Your task to perform on an android device: change the upload size in google photos Image 0: 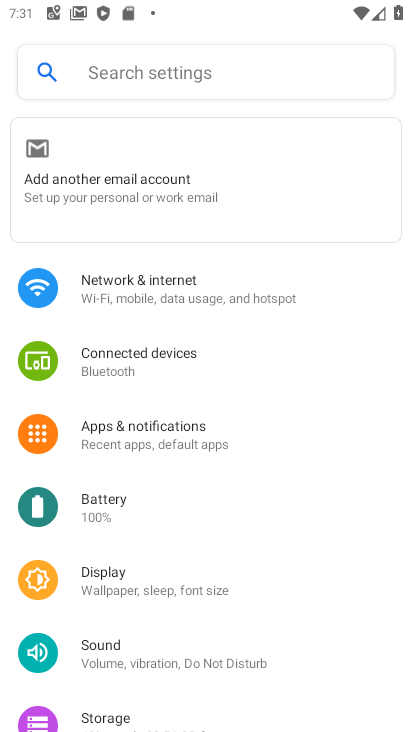
Step 0: press home button
Your task to perform on an android device: change the upload size in google photos Image 1: 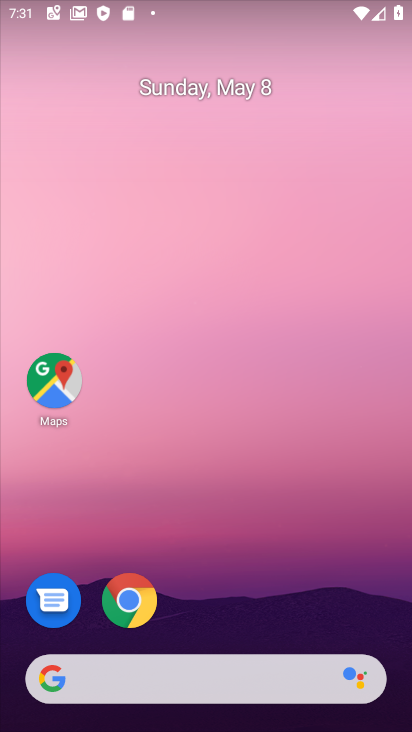
Step 1: drag from (251, 723) to (218, 335)
Your task to perform on an android device: change the upload size in google photos Image 2: 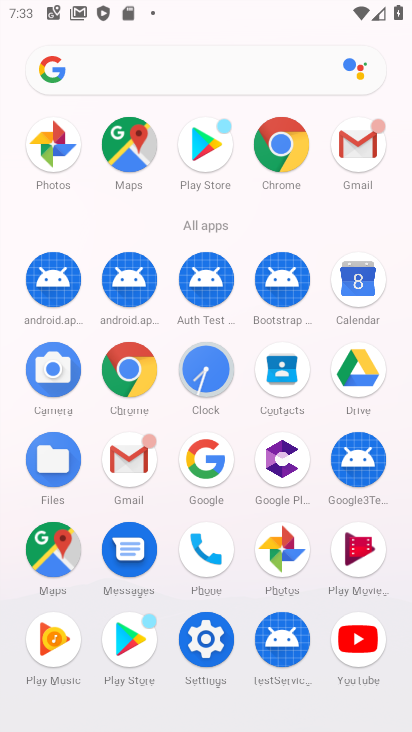
Step 2: click (282, 540)
Your task to perform on an android device: change the upload size in google photos Image 3: 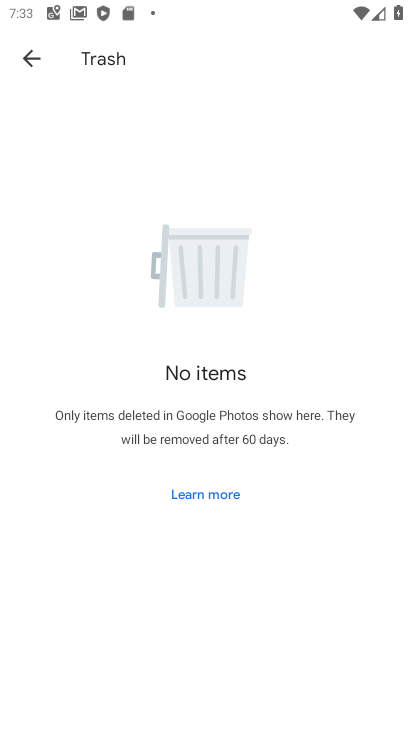
Step 3: click (40, 66)
Your task to perform on an android device: change the upload size in google photos Image 4: 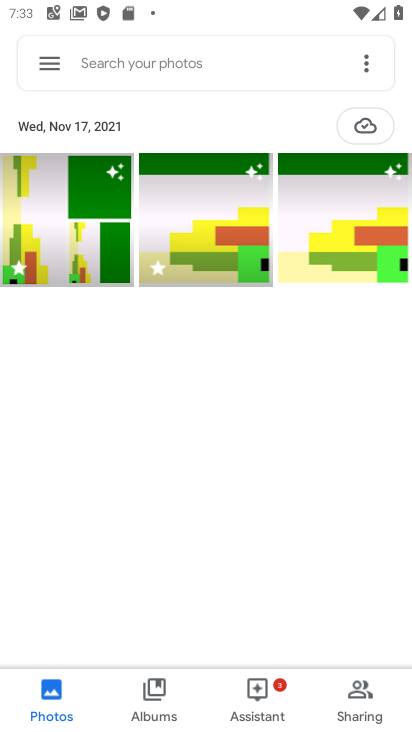
Step 4: click (48, 57)
Your task to perform on an android device: change the upload size in google photos Image 5: 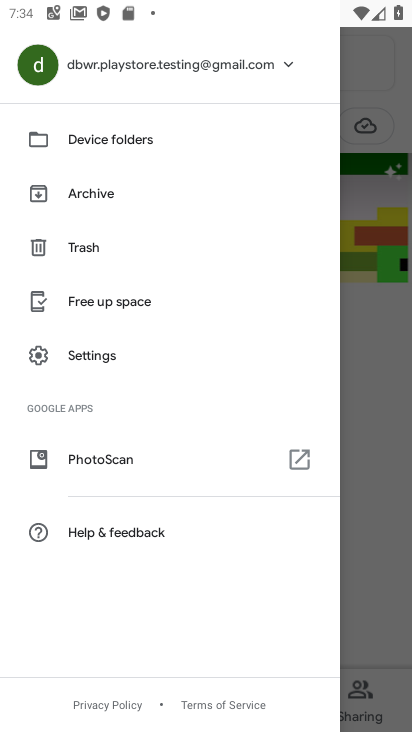
Step 5: click (126, 354)
Your task to perform on an android device: change the upload size in google photos Image 6: 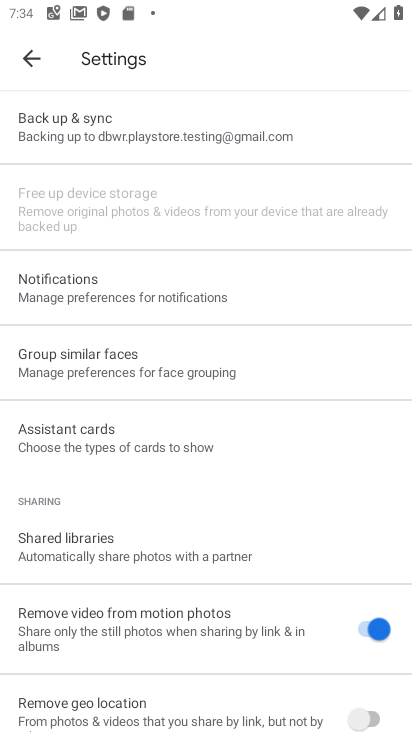
Step 6: click (160, 138)
Your task to perform on an android device: change the upload size in google photos Image 7: 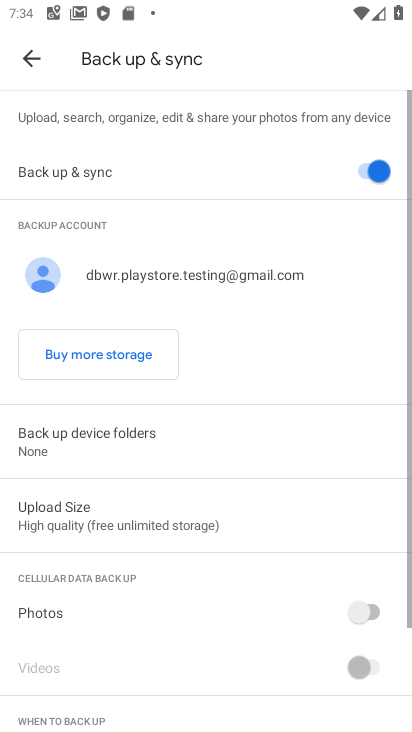
Step 7: drag from (246, 534) to (291, 352)
Your task to perform on an android device: change the upload size in google photos Image 8: 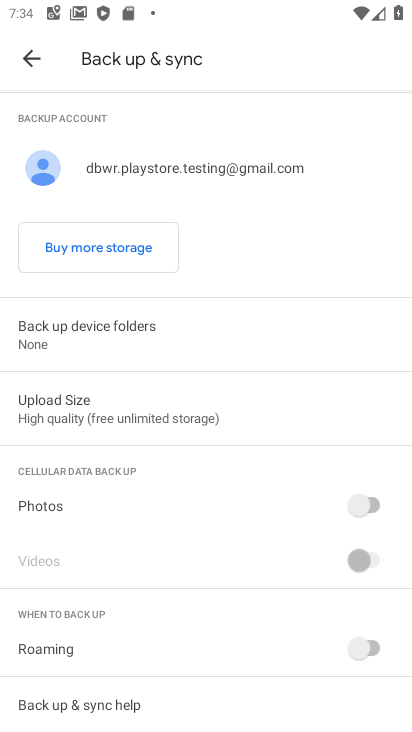
Step 8: click (123, 403)
Your task to perform on an android device: change the upload size in google photos Image 9: 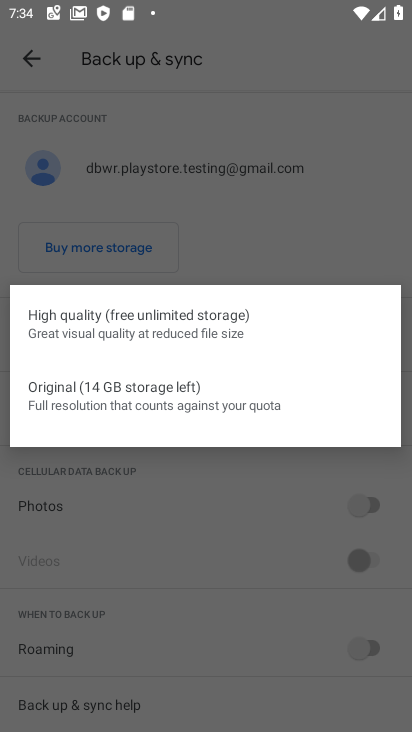
Step 9: task complete